Your task to perform on an android device: snooze an email in the gmail app Image 0: 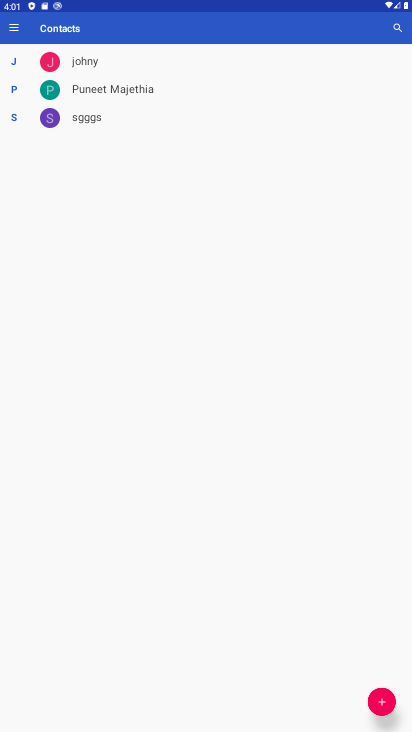
Step 0: press home button
Your task to perform on an android device: snooze an email in the gmail app Image 1: 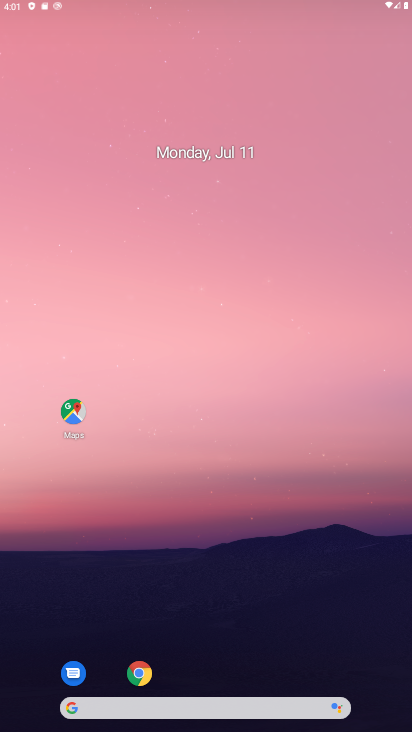
Step 1: drag from (394, 691) to (250, 66)
Your task to perform on an android device: snooze an email in the gmail app Image 2: 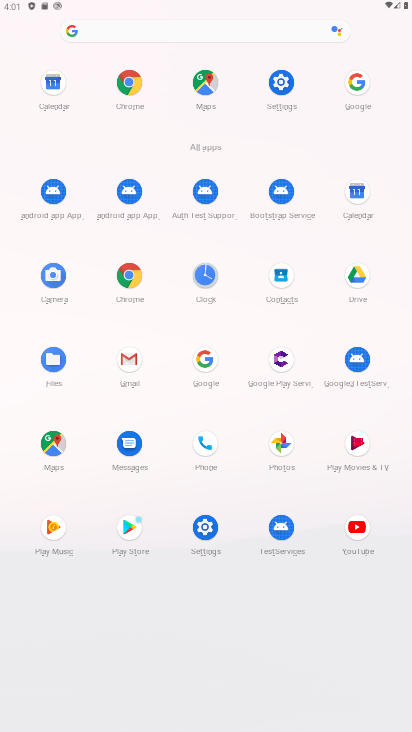
Step 2: click (127, 376)
Your task to perform on an android device: snooze an email in the gmail app Image 3: 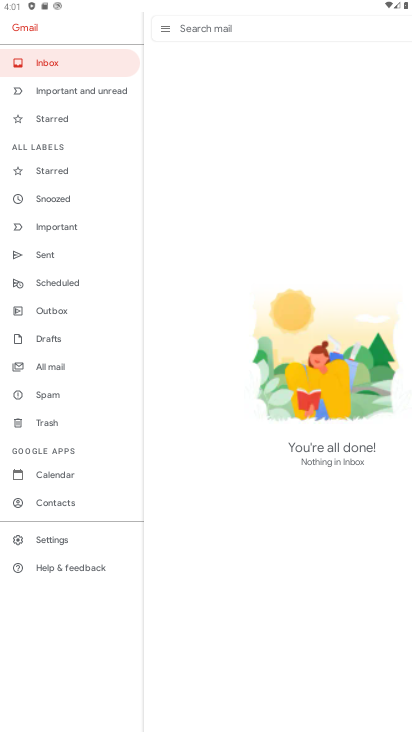
Step 3: click (84, 200)
Your task to perform on an android device: snooze an email in the gmail app Image 4: 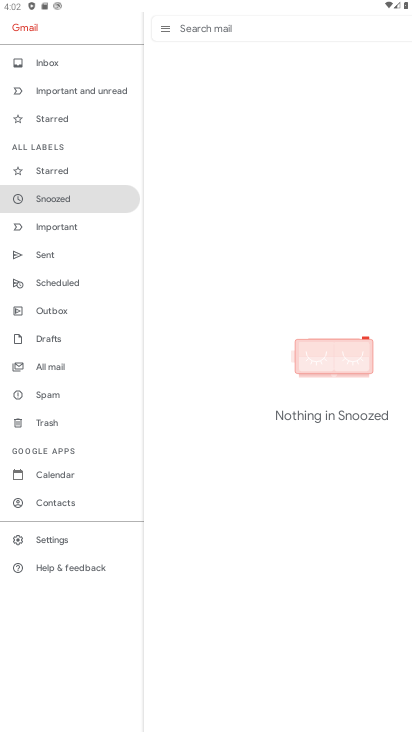
Step 4: task complete